Your task to perform on an android device: How much does a 2 bedroom apartment rent for in Atlanta? Image 0: 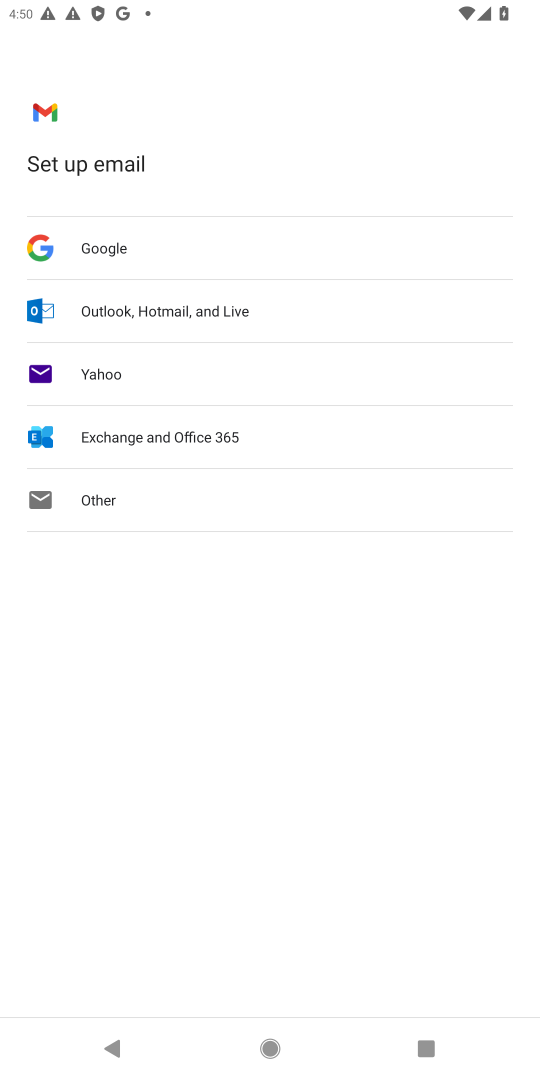
Step 0: press home button
Your task to perform on an android device: How much does a 2 bedroom apartment rent for in Atlanta? Image 1: 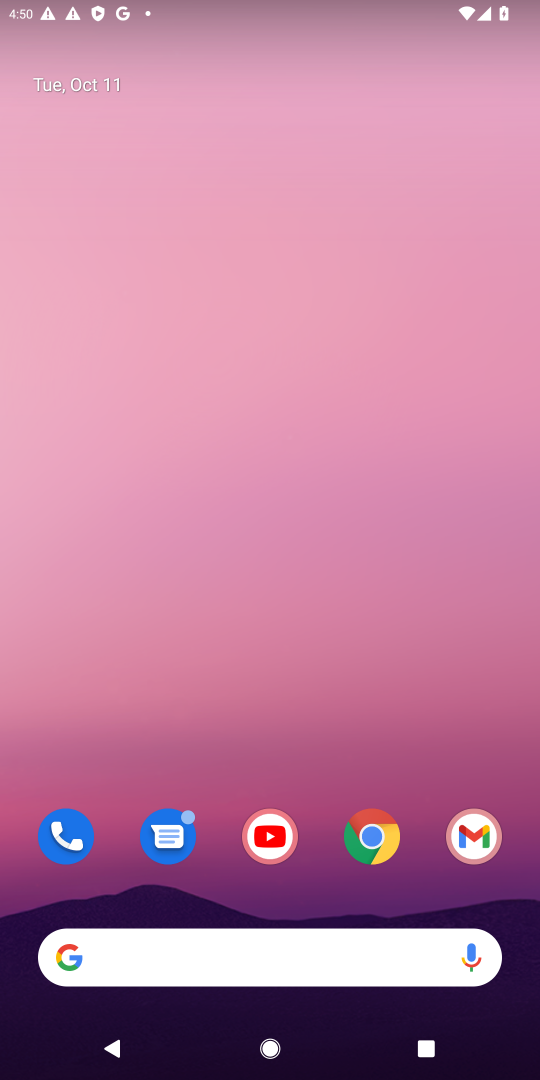
Step 1: click (383, 844)
Your task to perform on an android device: How much does a 2 bedroom apartment rent for in Atlanta? Image 2: 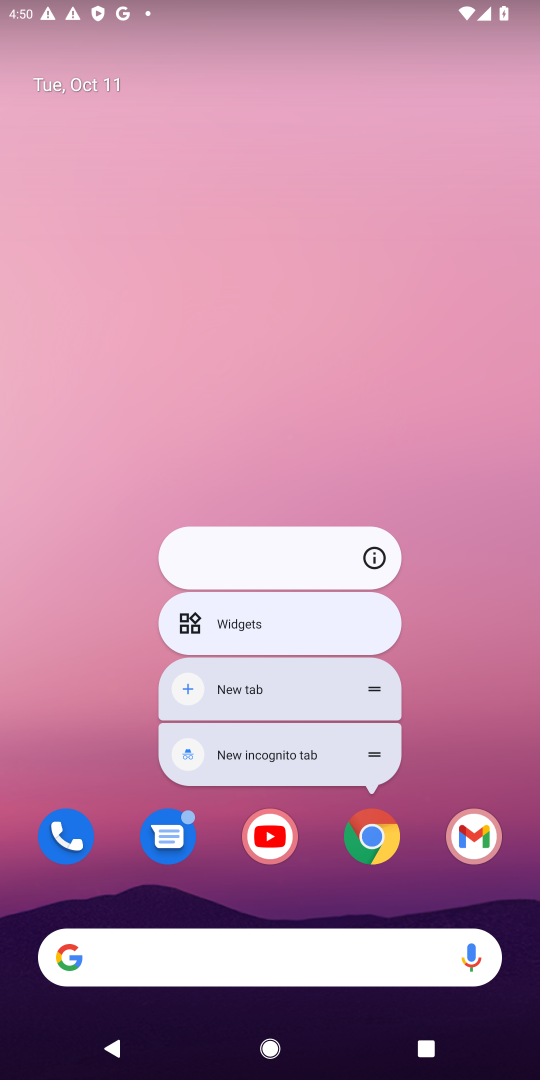
Step 2: click (378, 837)
Your task to perform on an android device: How much does a 2 bedroom apartment rent for in Atlanta? Image 3: 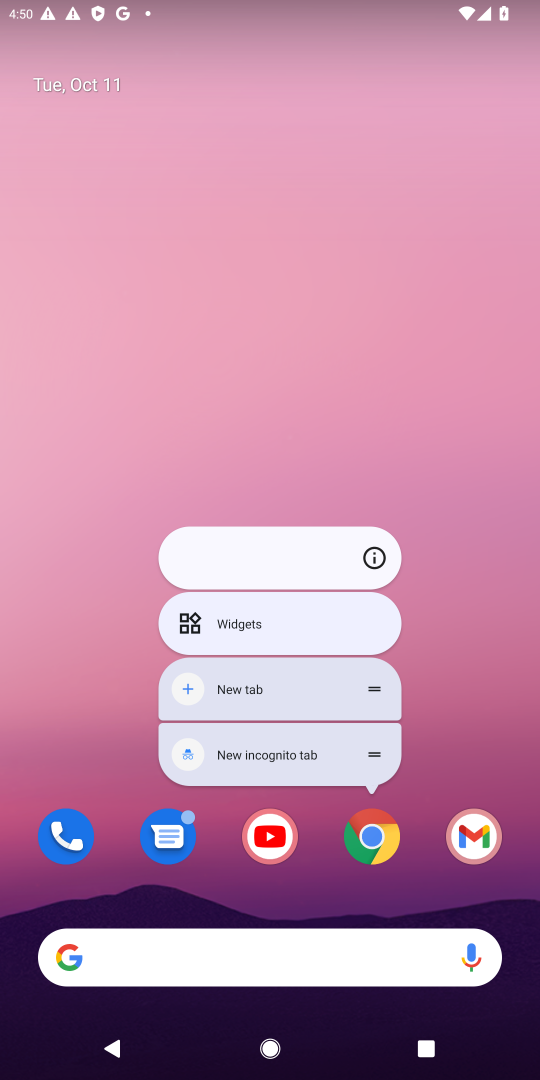
Step 3: click (375, 840)
Your task to perform on an android device: How much does a 2 bedroom apartment rent for in Atlanta? Image 4: 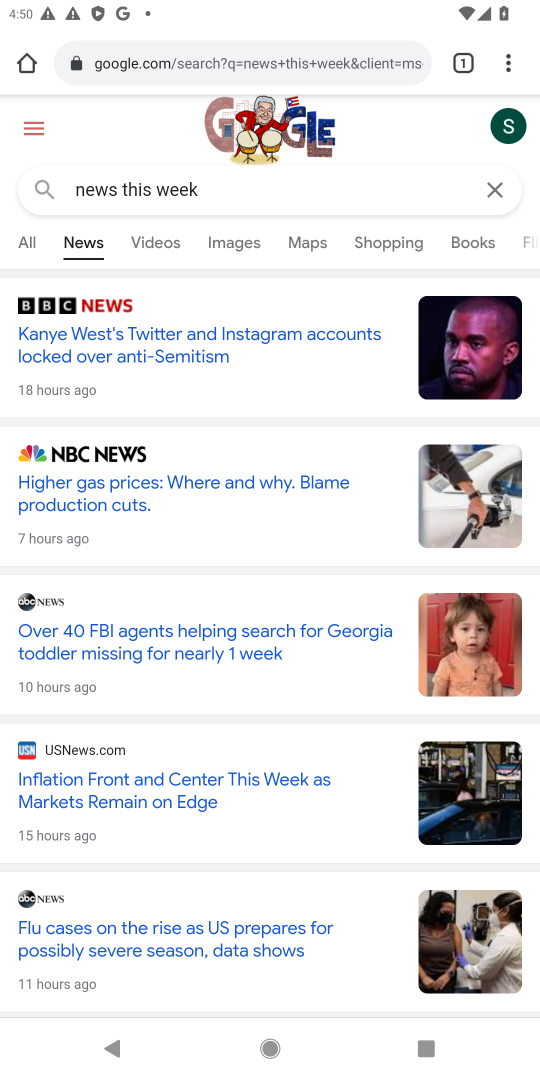
Step 4: click (232, 59)
Your task to perform on an android device: How much does a 2 bedroom apartment rent for in Atlanta? Image 5: 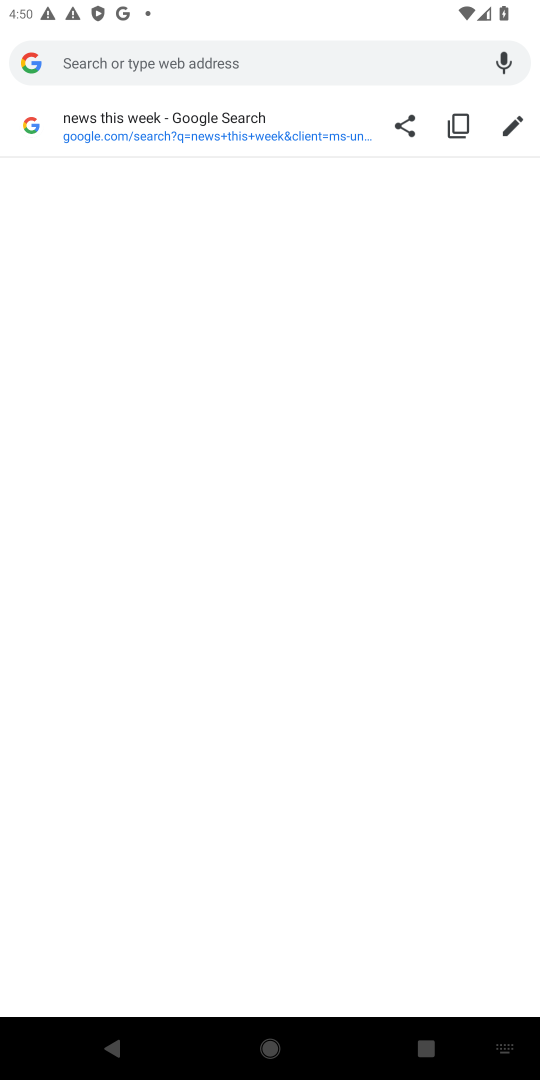
Step 5: type "2 bedroom apartment rent for in Atlanta"
Your task to perform on an android device: How much does a 2 bedroom apartment rent for in Atlanta? Image 6: 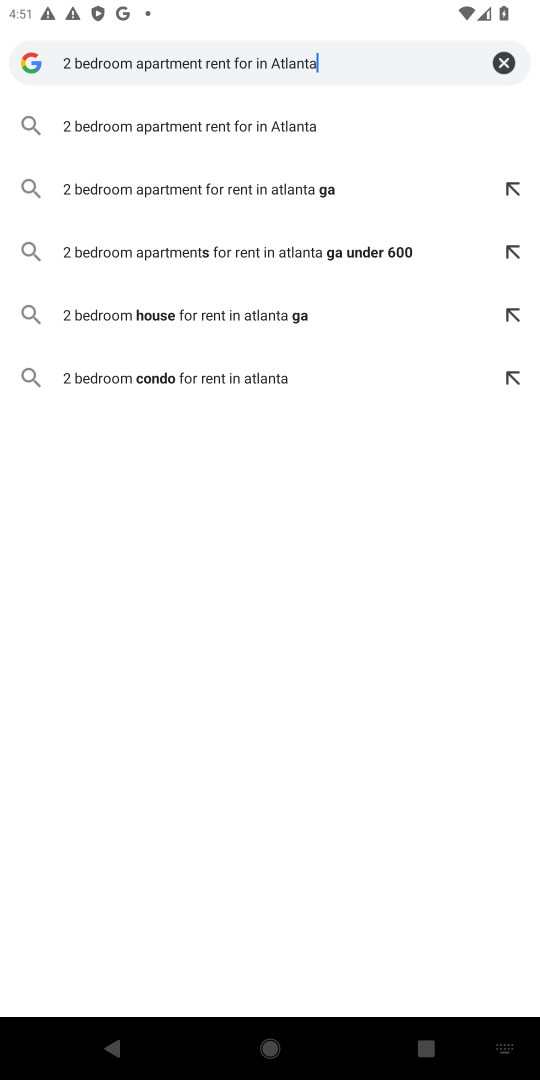
Step 6: click (174, 130)
Your task to perform on an android device: How much does a 2 bedroom apartment rent for in Atlanta? Image 7: 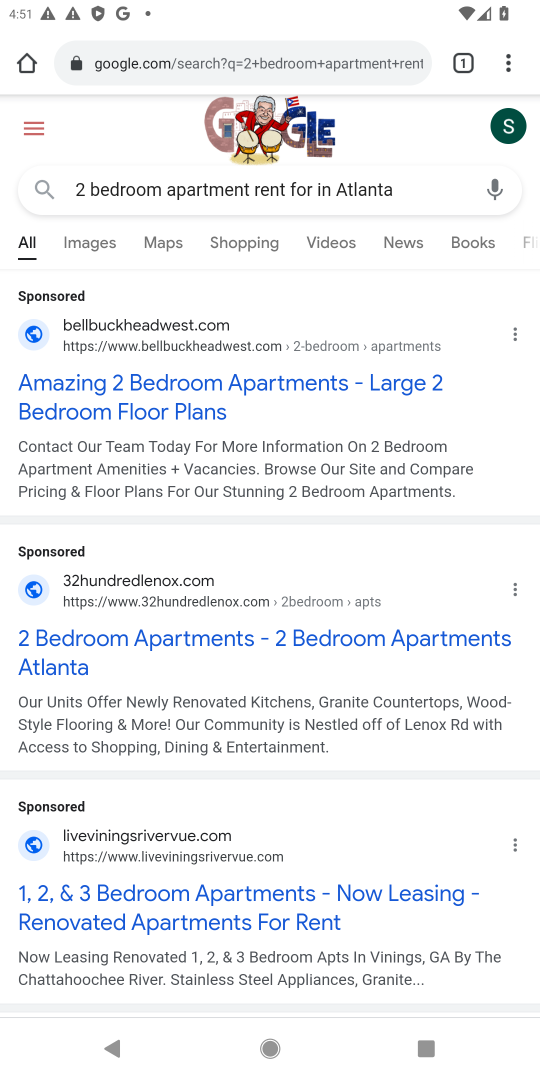
Step 7: drag from (295, 634) to (385, 468)
Your task to perform on an android device: How much does a 2 bedroom apartment rent for in Atlanta? Image 8: 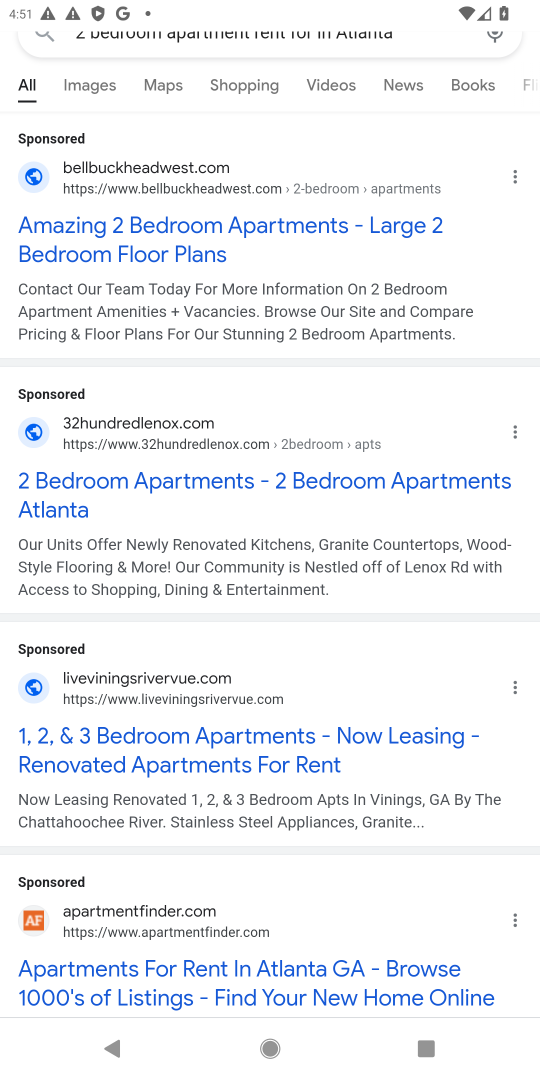
Step 8: drag from (274, 883) to (407, 585)
Your task to perform on an android device: How much does a 2 bedroom apartment rent for in Atlanta? Image 9: 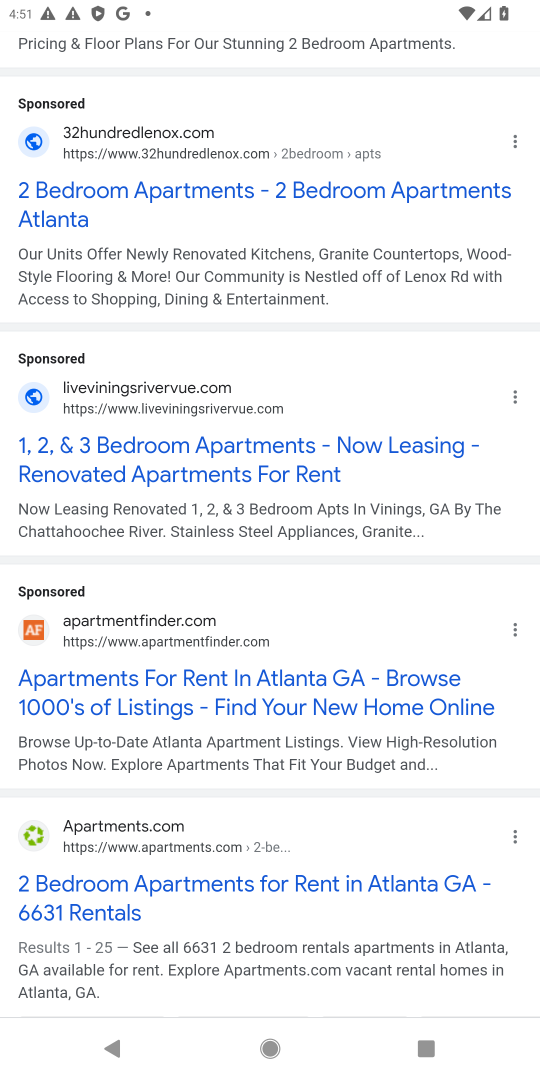
Step 9: click (208, 881)
Your task to perform on an android device: How much does a 2 bedroom apartment rent for in Atlanta? Image 10: 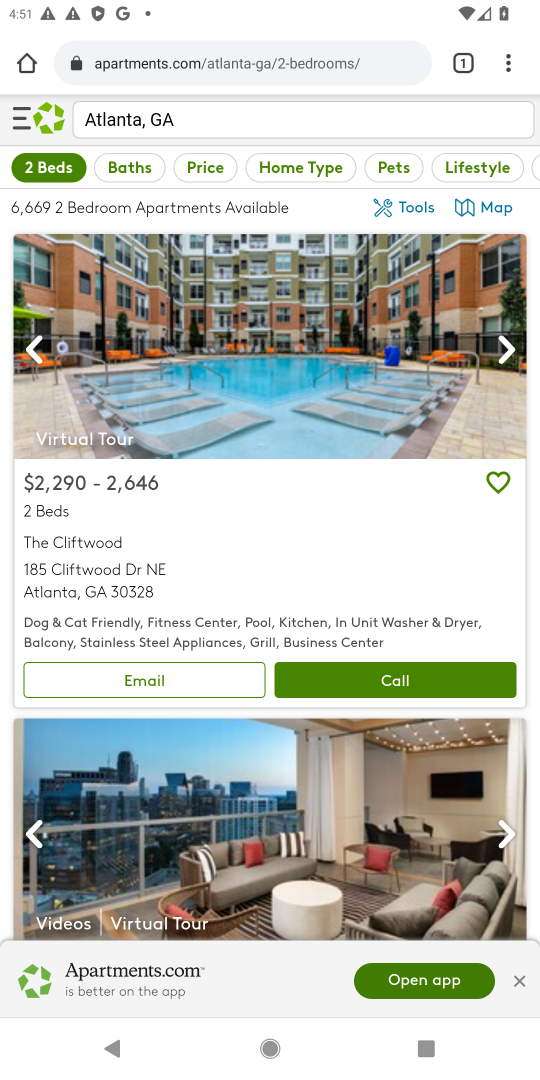
Step 10: task complete